Your task to perform on an android device: Go to internet settings Image 0: 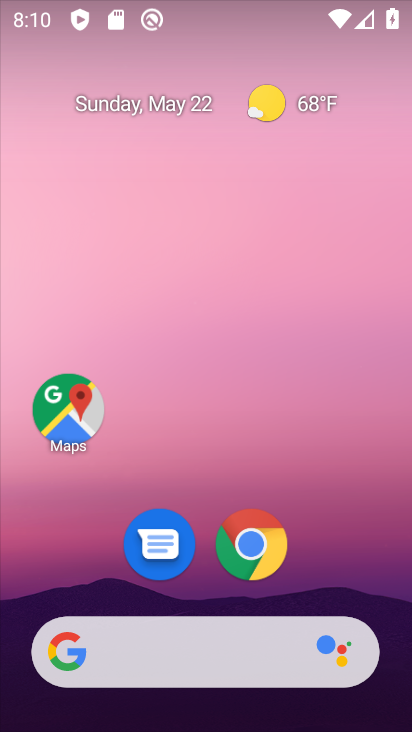
Step 0: drag from (375, 616) to (388, 182)
Your task to perform on an android device: Go to internet settings Image 1: 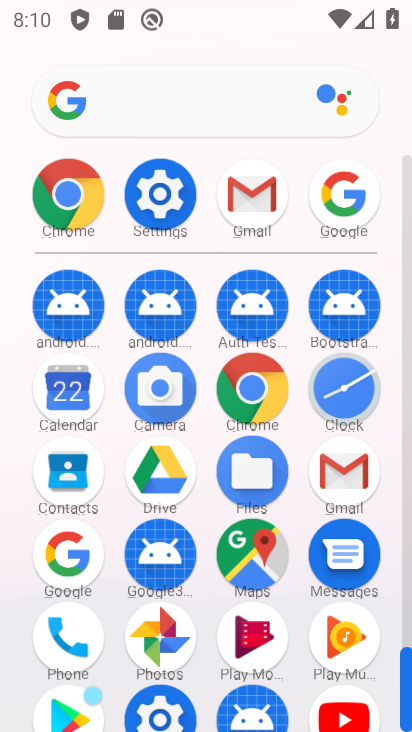
Step 1: click (142, 213)
Your task to perform on an android device: Go to internet settings Image 2: 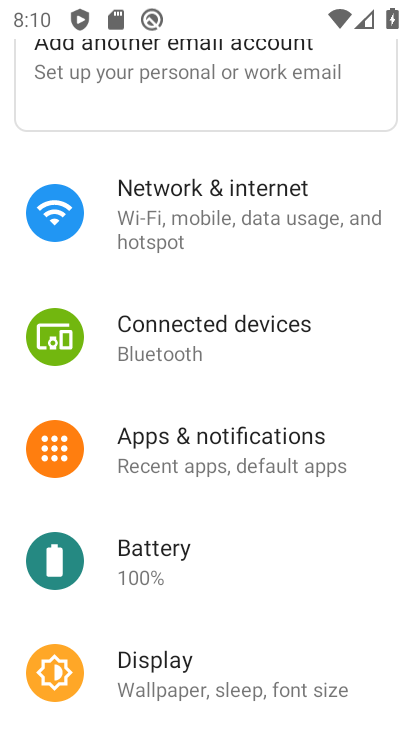
Step 2: click (261, 202)
Your task to perform on an android device: Go to internet settings Image 3: 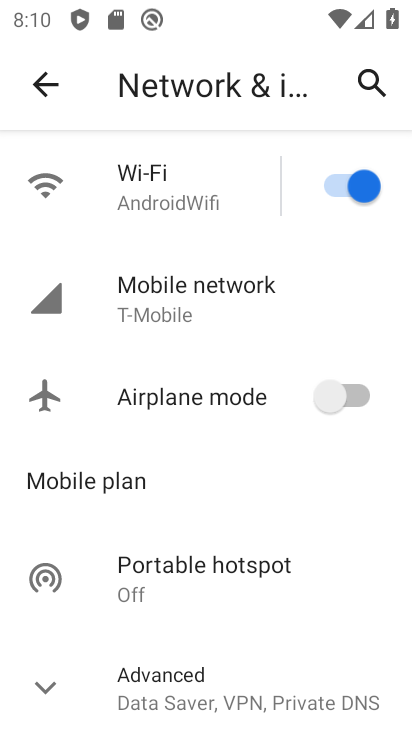
Step 3: click (203, 309)
Your task to perform on an android device: Go to internet settings Image 4: 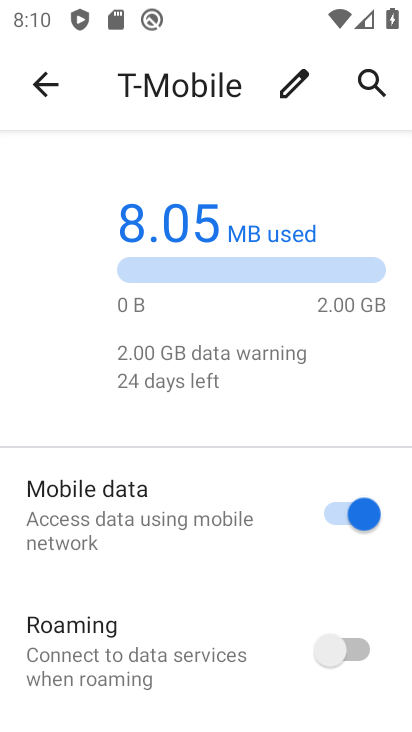
Step 4: task complete